Your task to perform on an android device: What is the news today? Image 0: 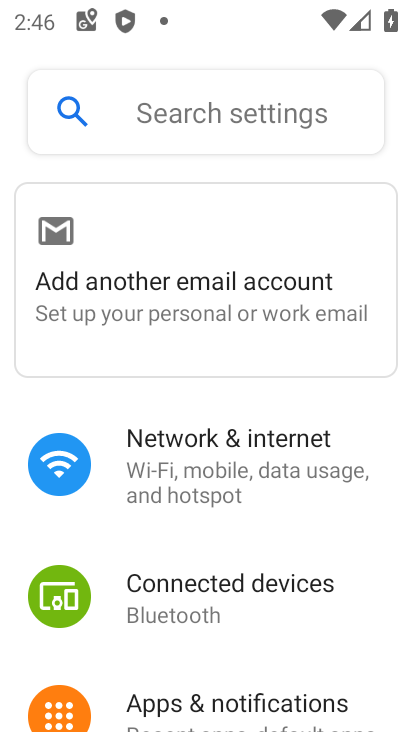
Step 0: press back button
Your task to perform on an android device: What is the news today? Image 1: 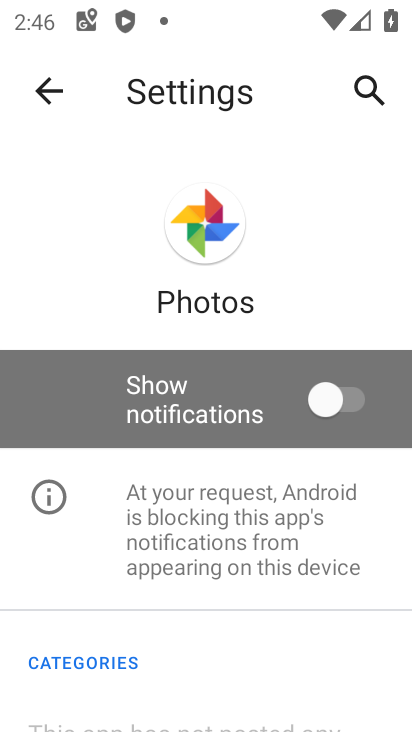
Step 1: press back button
Your task to perform on an android device: What is the news today? Image 2: 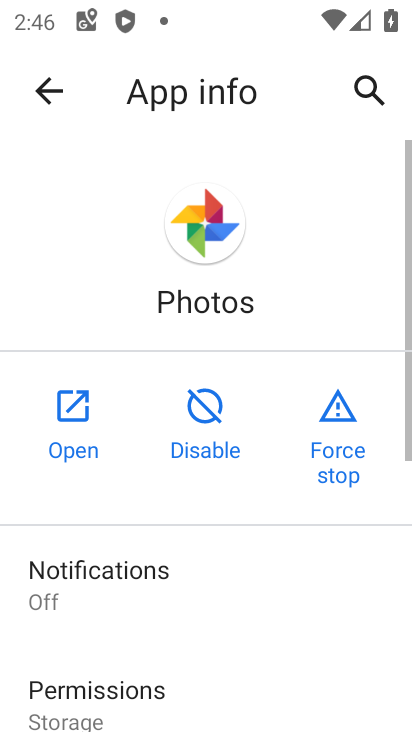
Step 2: press back button
Your task to perform on an android device: What is the news today? Image 3: 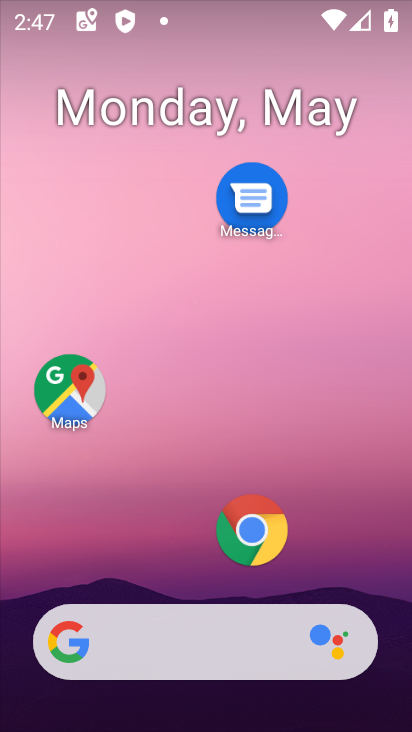
Step 3: click (167, 638)
Your task to perform on an android device: What is the news today? Image 4: 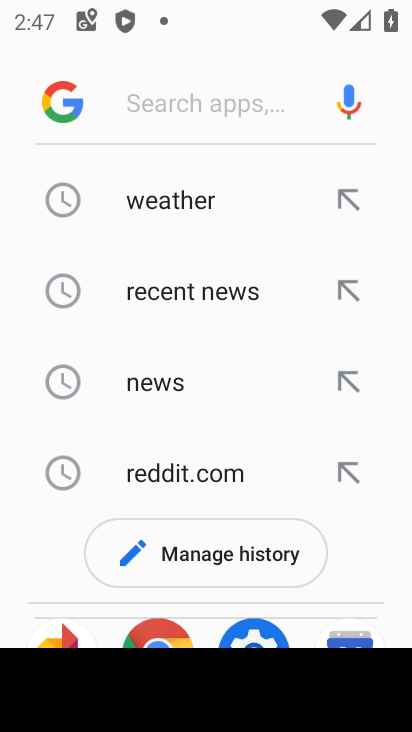
Step 4: click (124, 107)
Your task to perform on an android device: What is the news today? Image 5: 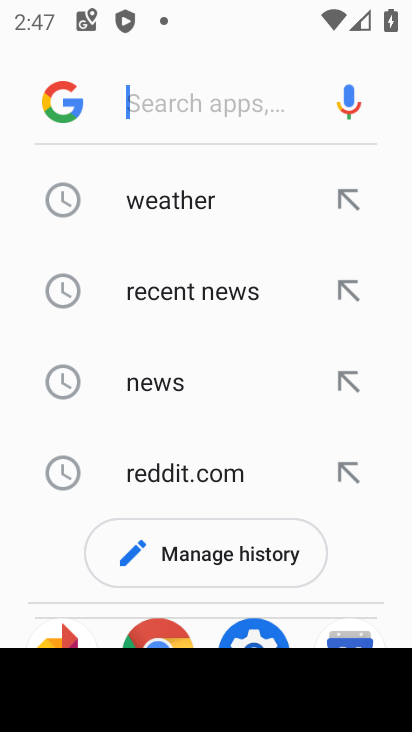
Step 5: type "news today"
Your task to perform on an android device: What is the news today? Image 6: 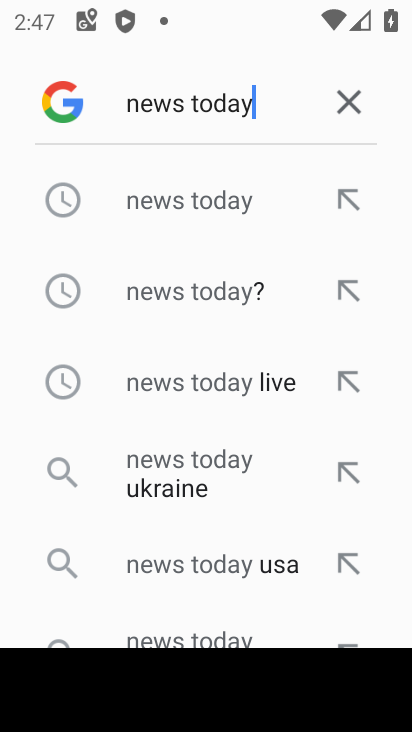
Step 6: click (195, 201)
Your task to perform on an android device: What is the news today? Image 7: 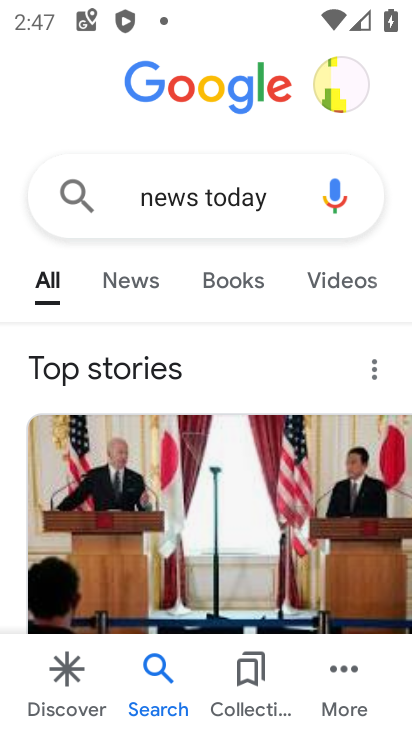
Step 7: task complete